Your task to perform on an android device: change the clock display to analog Image 0: 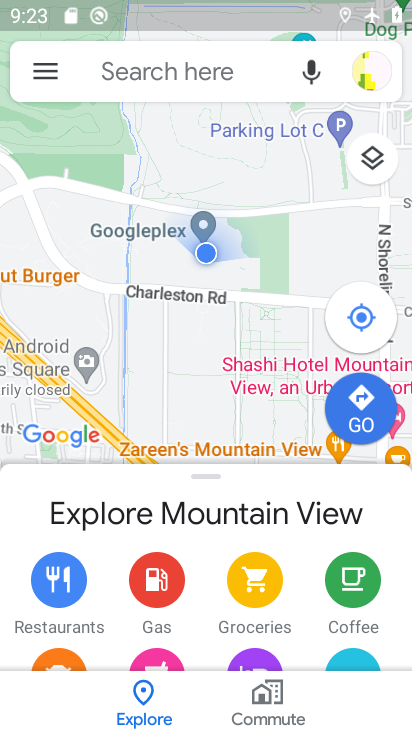
Step 0: press home button
Your task to perform on an android device: change the clock display to analog Image 1: 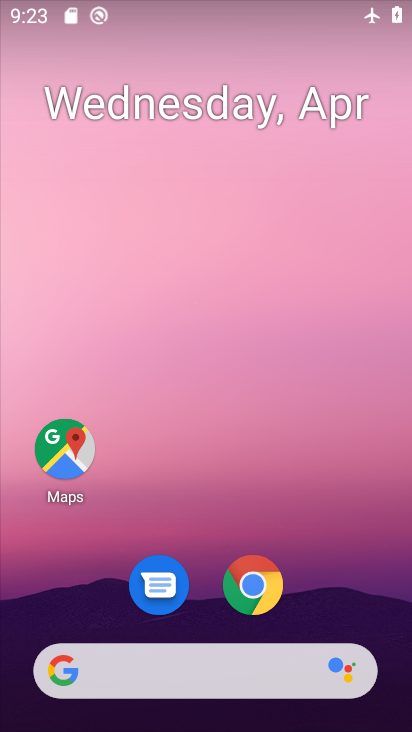
Step 1: drag from (347, 569) to (318, 69)
Your task to perform on an android device: change the clock display to analog Image 2: 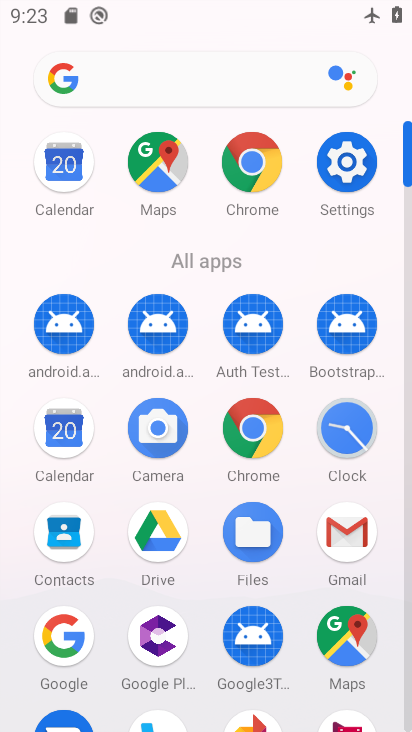
Step 2: click (350, 419)
Your task to perform on an android device: change the clock display to analog Image 3: 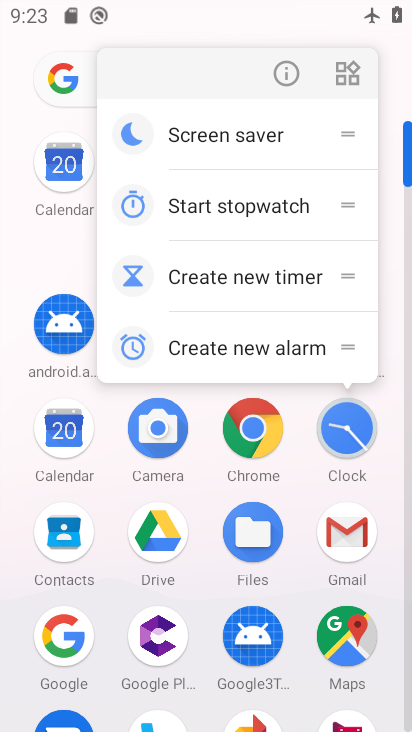
Step 3: click (350, 419)
Your task to perform on an android device: change the clock display to analog Image 4: 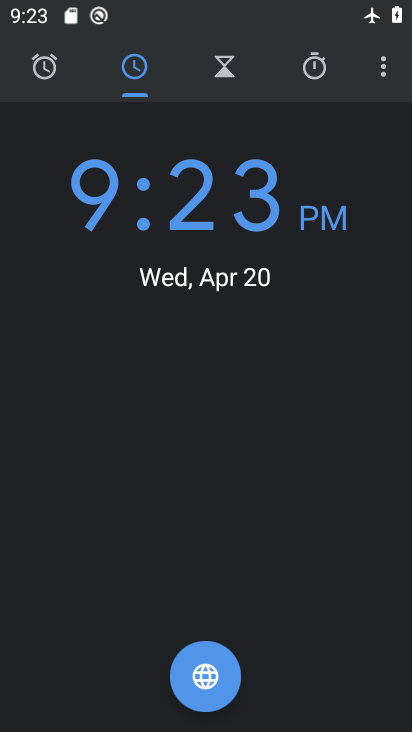
Step 4: click (385, 70)
Your task to perform on an android device: change the clock display to analog Image 5: 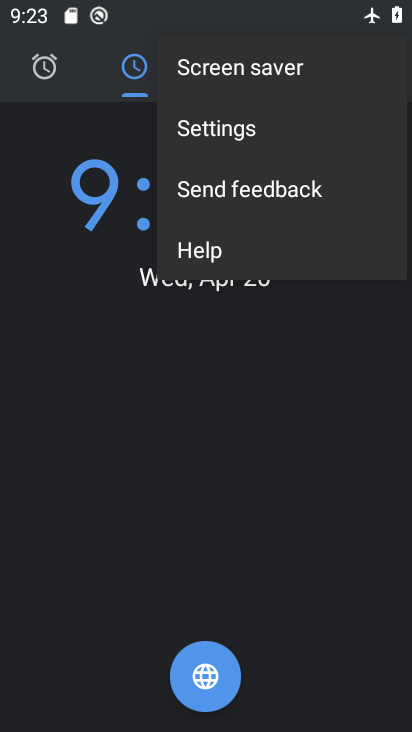
Step 5: click (316, 118)
Your task to perform on an android device: change the clock display to analog Image 6: 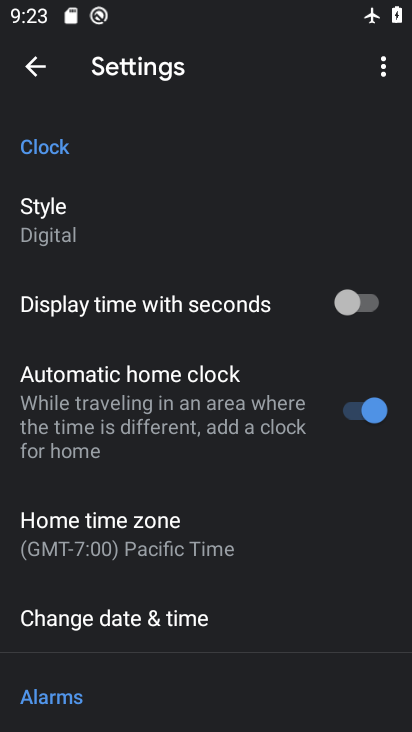
Step 6: click (179, 234)
Your task to perform on an android device: change the clock display to analog Image 7: 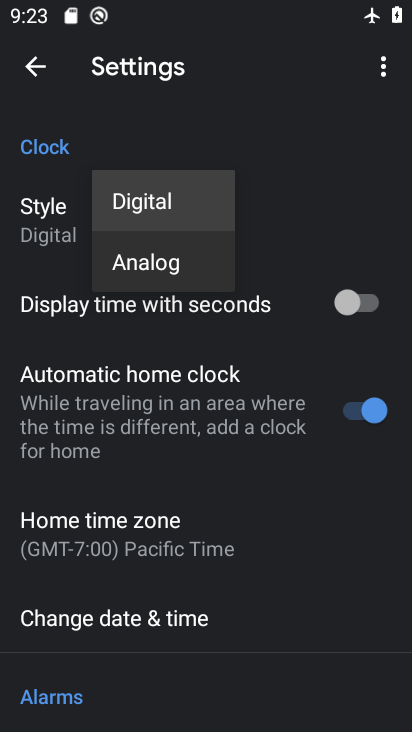
Step 7: click (184, 268)
Your task to perform on an android device: change the clock display to analog Image 8: 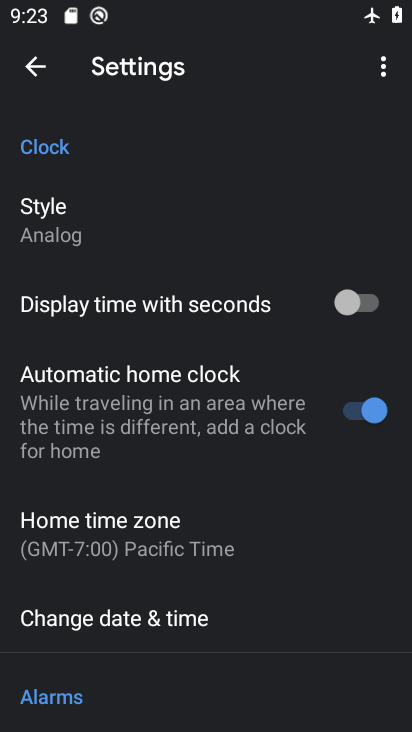
Step 8: click (34, 64)
Your task to perform on an android device: change the clock display to analog Image 9: 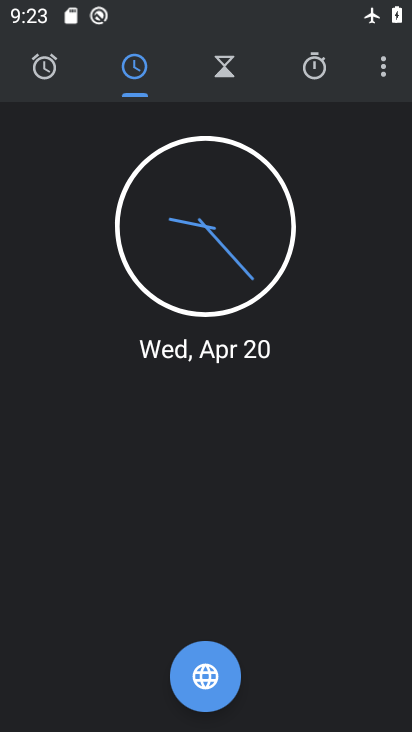
Step 9: task complete